Your task to perform on an android device: delete browsing data in the chrome app Image 0: 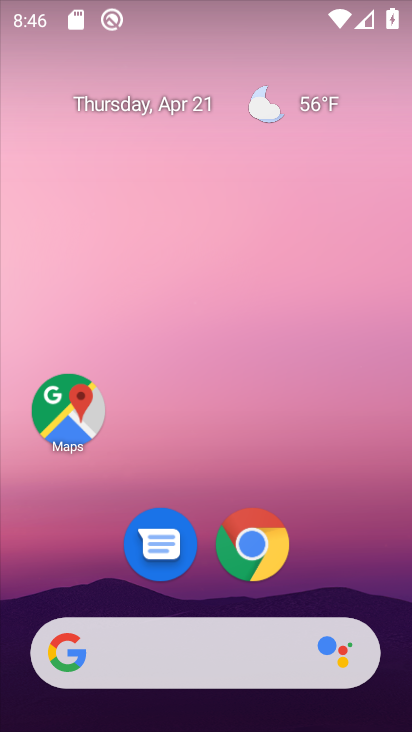
Step 0: click (256, 546)
Your task to perform on an android device: delete browsing data in the chrome app Image 1: 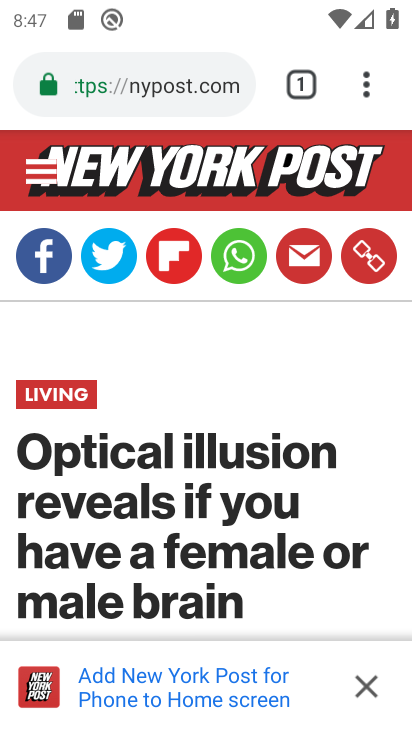
Step 1: click (362, 94)
Your task to perform on an android device: delete browsing data in the chrome app Image 2: 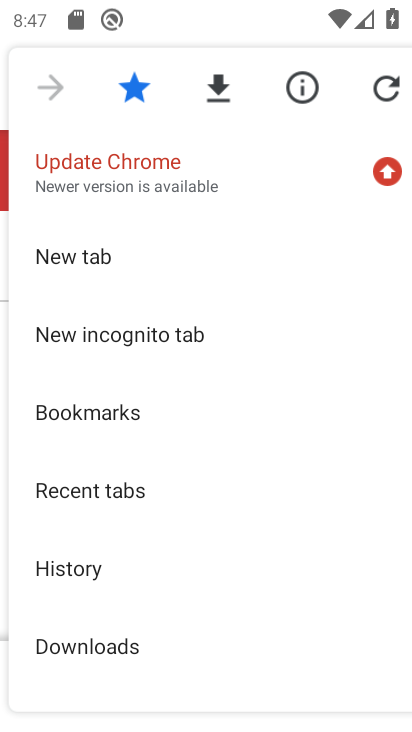
Step 2: click (57, 569)
Your task to perform on an android device: delete browsing data in the chrome app Image 3: 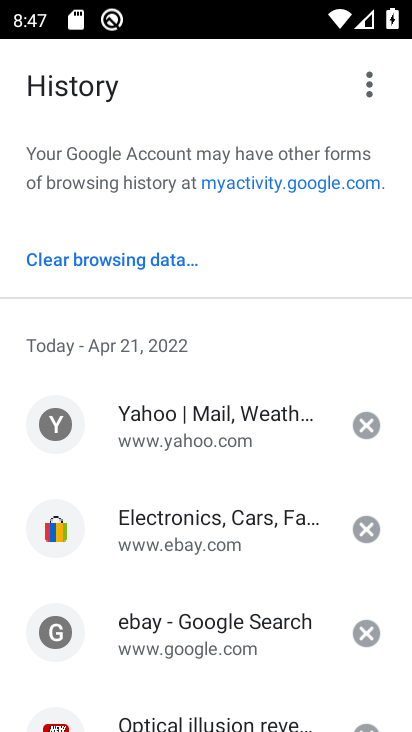
Step 3: click (98, 256)
Your task to perform on an android device: delete browsing data in the chrome app Image 4: 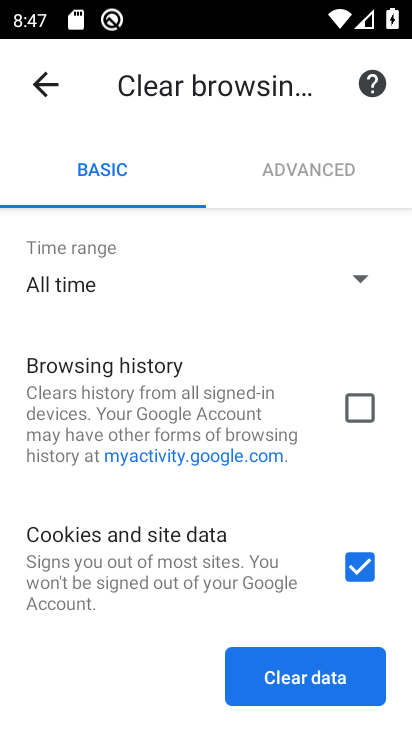
Step 4: drag from (206, 514) to (206, 399)
Your task to perform on an android device: delete browsing data in the chrome app Image 5: 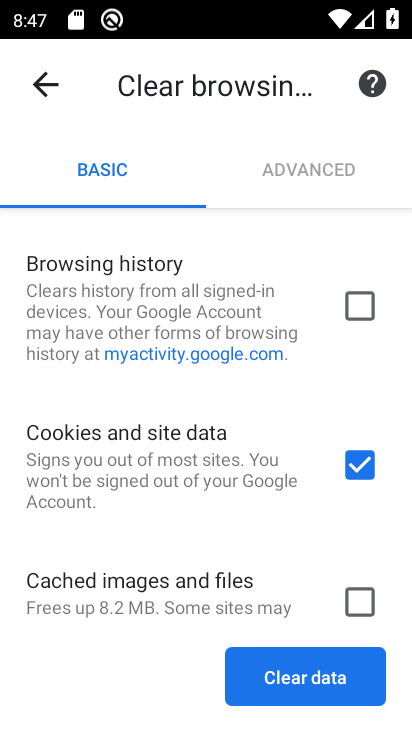
Step 5: click (352, 306)
Your task to perform on an android device: delete browsing data in the chrome app Image 6: 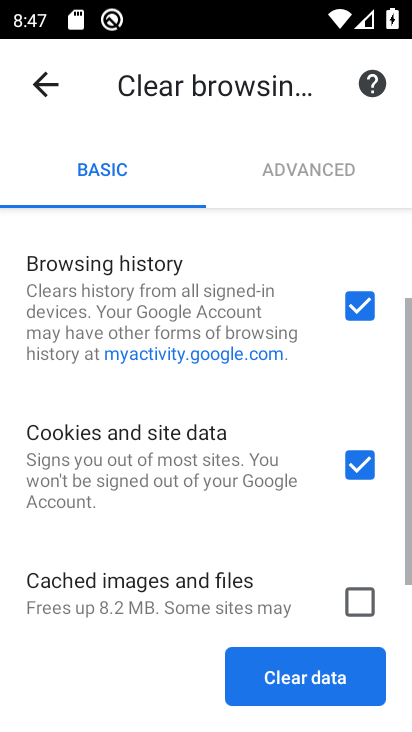
Step 6: click (356, 463)
Your task to perform on an android device: delete browsing data in the chrome app Image 7: 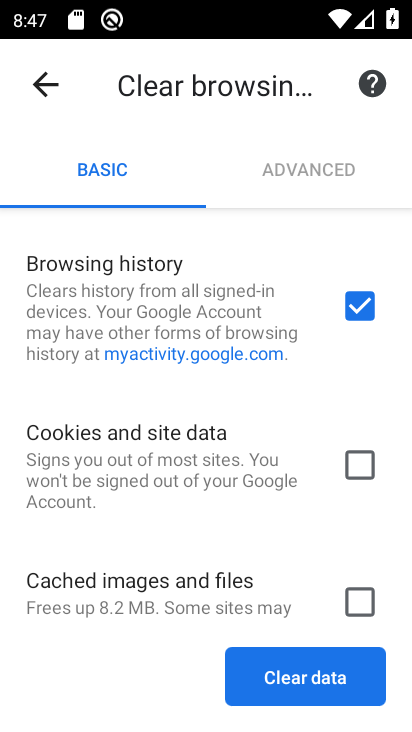
Step 7: click (321, 677)
Your task to perform on an android device: delete browsing data in the chrome app Image 8: 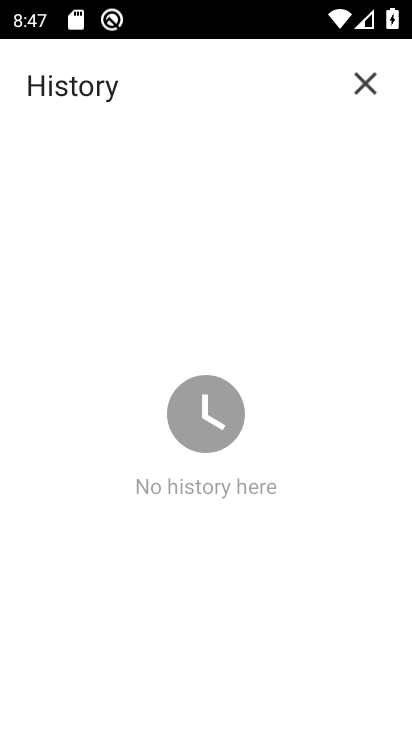
Step 8: task complete